Your task to perform on an android device: Open the calendar and show me this week's events? Image 0: 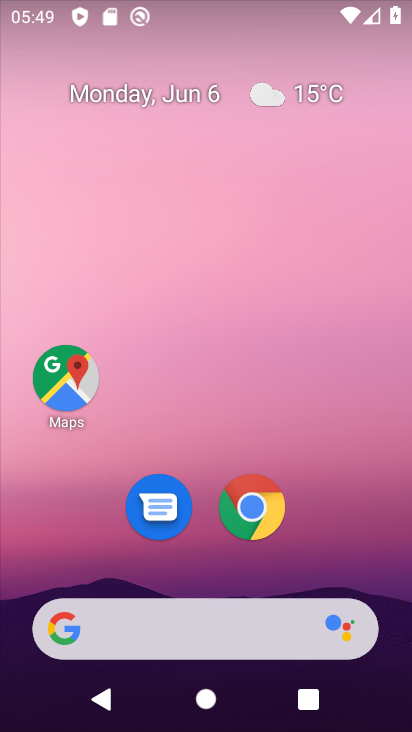
Step 0: drag from (199, 563) to (209, 278)
Your task to perform on an android device: Open the calendar and show me this week's events? Image 1: 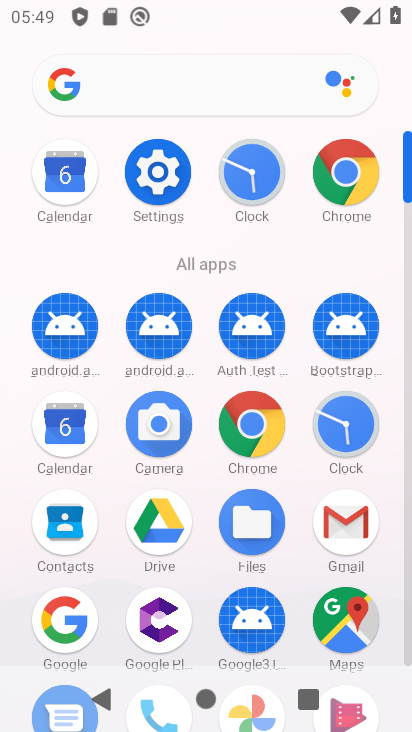
Step 1: click (64, 441)
Your task to perform on an android device: Open the calendar and show me this week's events? Image 2: 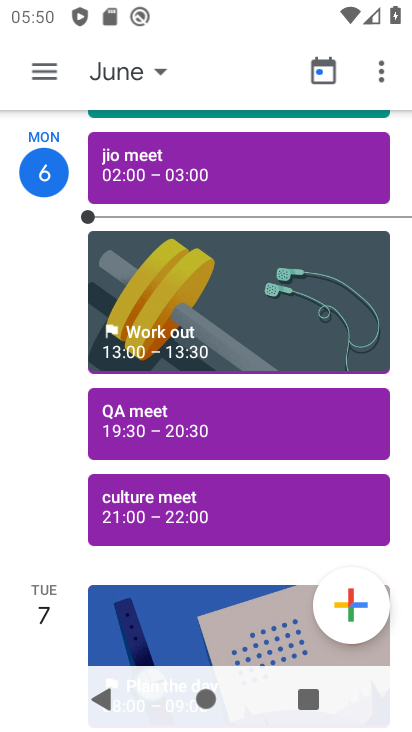
Step 2: click (53, 78)
Your task to perform on an android device: Open the calendar and show me this week's events? Image 3: 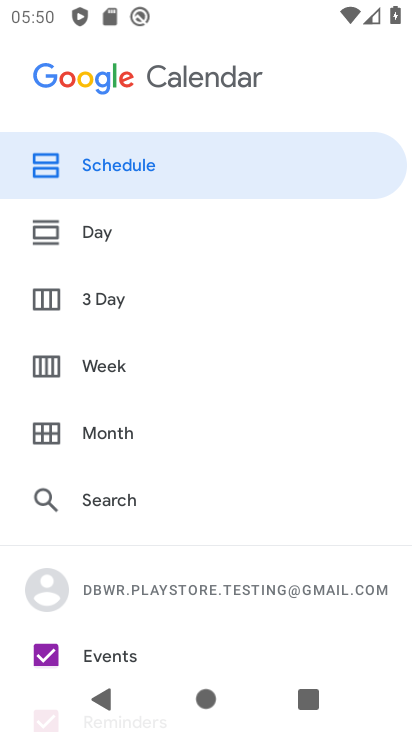
Step 3: click (95, 377)
Your task to perform on an android device: Open the calendar and show me this week's events? Image 4: 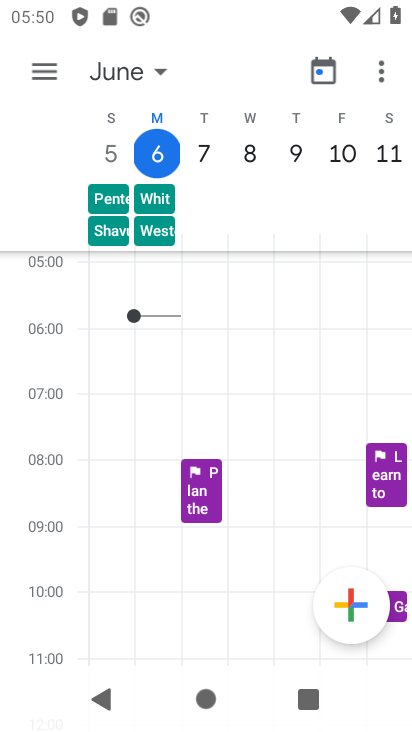
Step 4: task complete